Your task to perform on an android device: Open privacy settings Image 0: 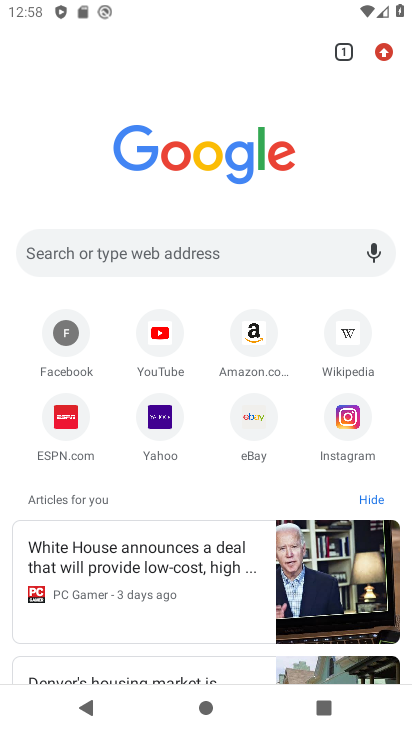
Step 0: press home button
Your task to perform on an android device: Open privacy settings Image 1: 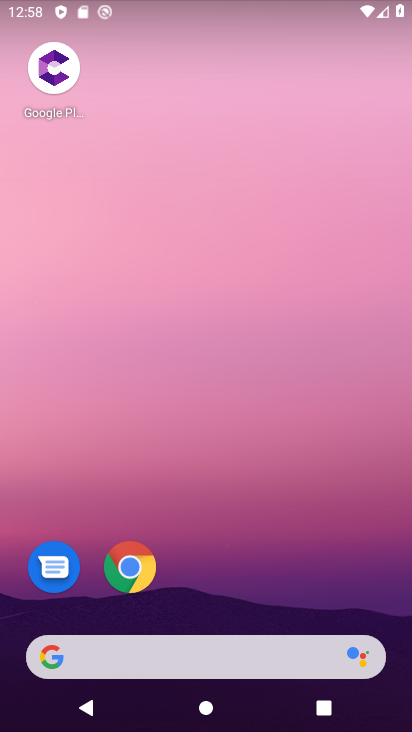
Step 1: drag from (209, 614) to (244, 25)
Your task to perform on an android device: Open privacy settings Image 2: 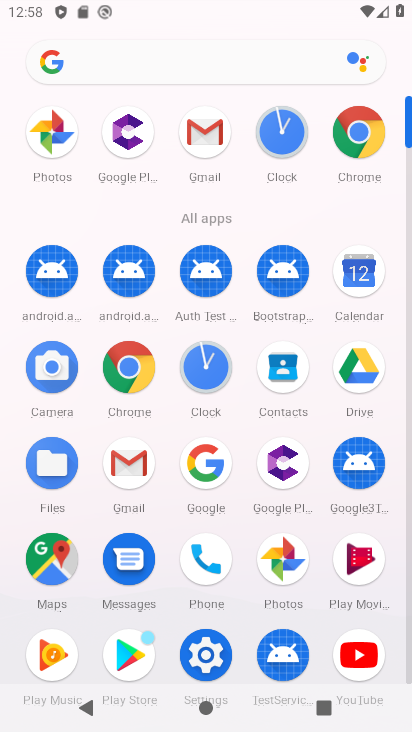
Step 2: click (207, 649)
Your task to perform on an android device: Open privacy settings Image 3: 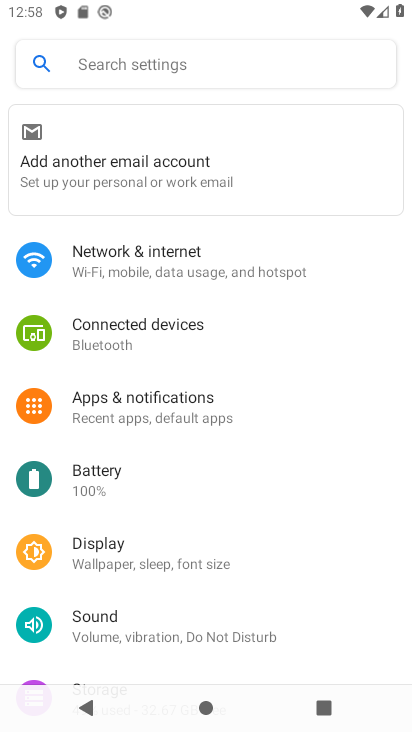
Step 3: drag from (175, 590) to (175, 193)
Your task to perform on an android device: Open privacy settings Image 4: 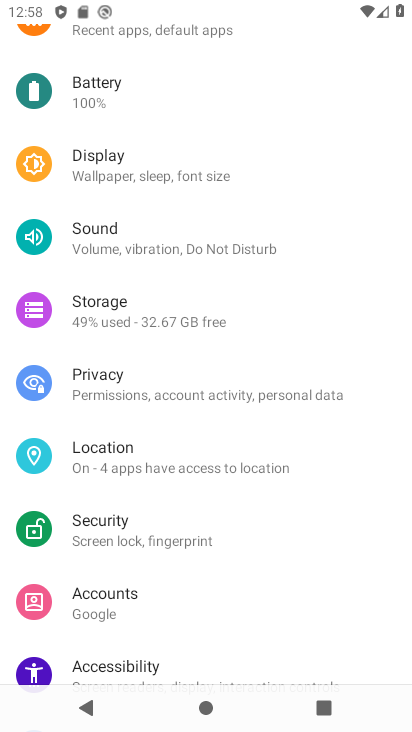
Step 4: click (136, 377)
Your task to perform on an android device: Open privacy settings Image 5: 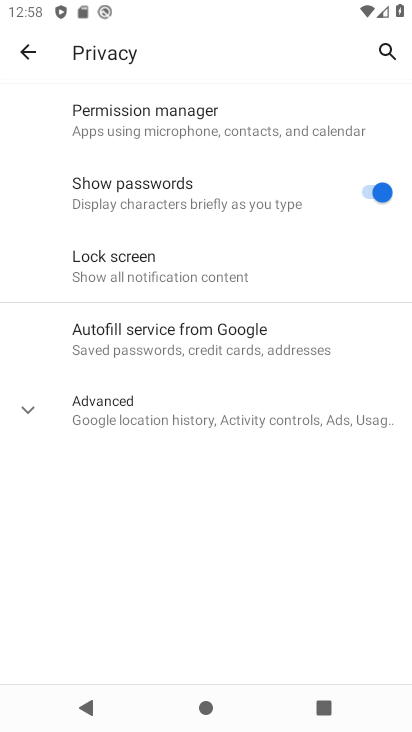
Step 5: click (30, 388)
Your task to perform on an android device: Open privacy settings Image 6: 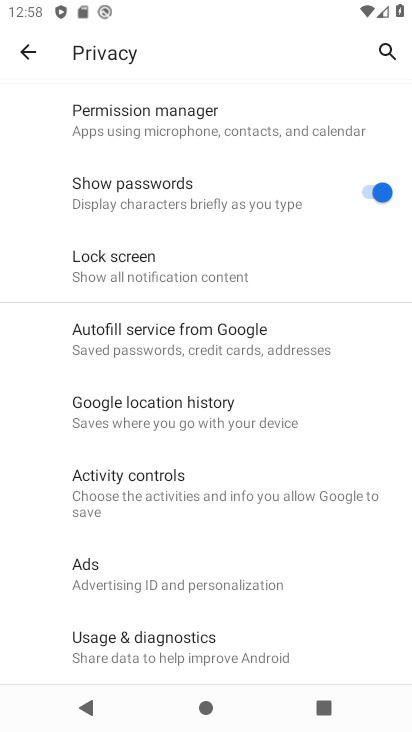
Step 6: task complete